Your task to perform on an android device: empty trash in google photos Image 0: 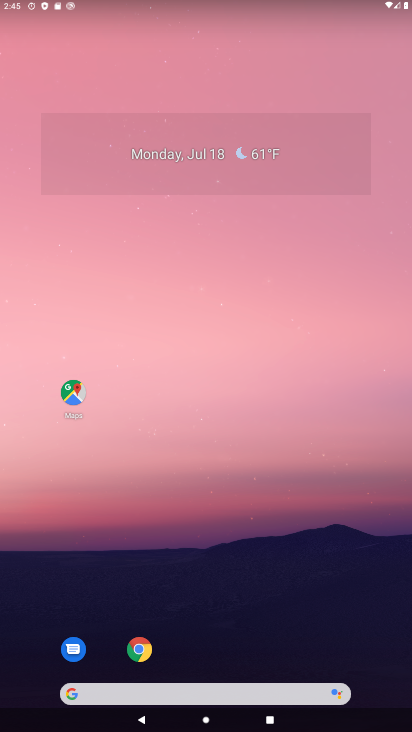
Step 0: drag from (68, 544) to (123, 301)
Your task to perform on an android device: empty trash in google photos Image 1: 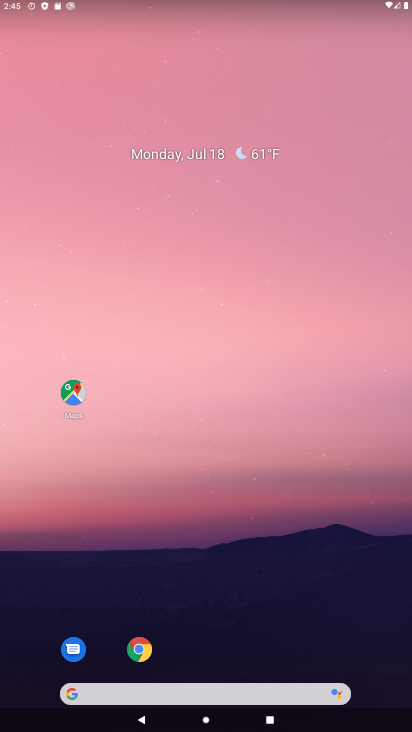
Step 1: drag from (45, 634) to (205, 119)
Your task to perform on an android device: empty trash in google photos Image 2: 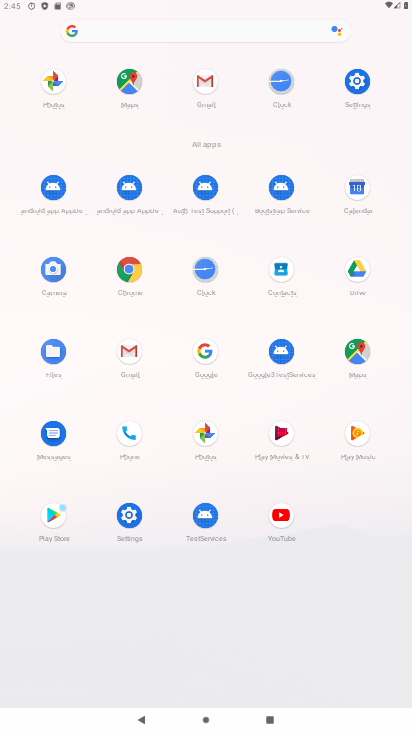
Step 2: click (204, 445)
Your task to perform on an android device: empty trash in google photos Image 3: 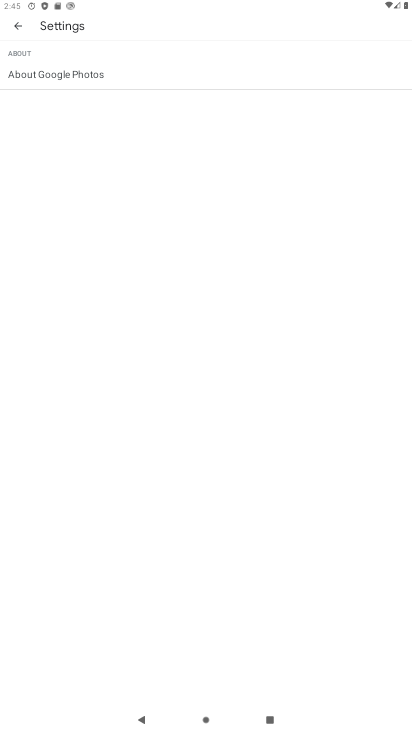
Step 3: click (7, 19)
Your task to perform on an android device: empty trash in google photos Image 4: 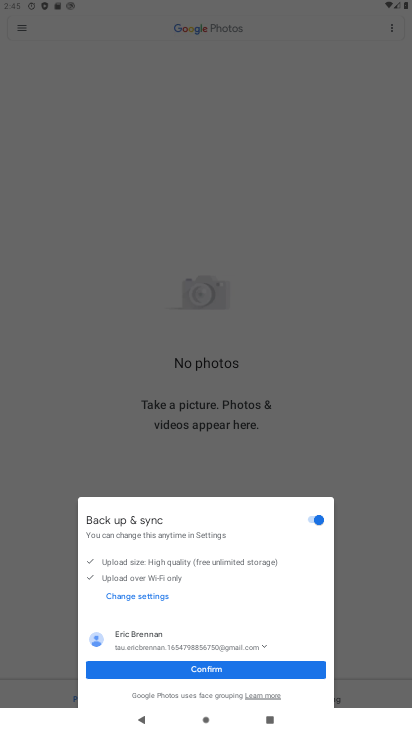
Step 4: click (141, 676)
Your task to perform on an android device: empty trash in google photos Image 5: 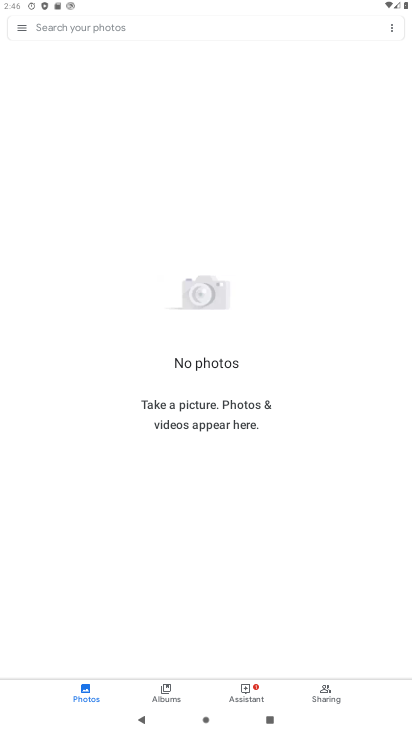
Step 5: click (17, 28)
Your task to perform on an android device: empty trash in google photos Image 6: 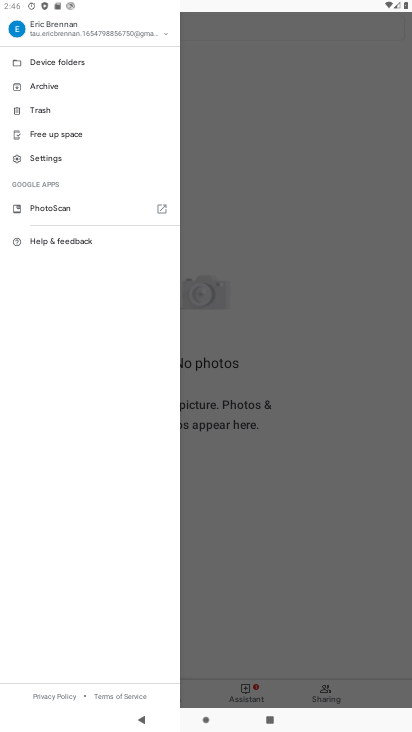
Step 6: click (48, 114)
Your task to perform on an android device: empty trash in google photos Image 7: 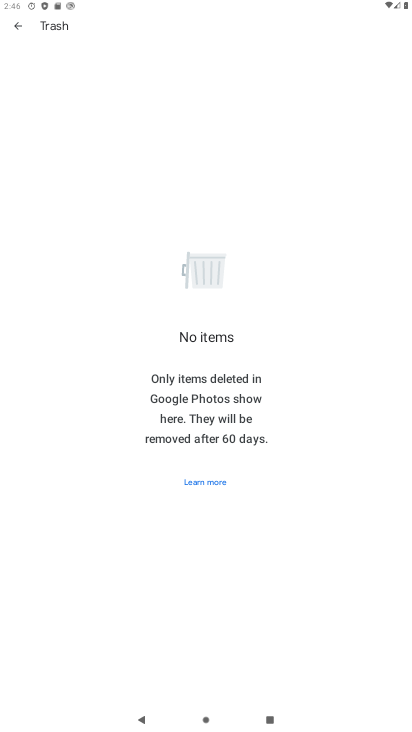
Step 7: task complete